Your task to perform on an android device: Open Reddit.com Image 0: 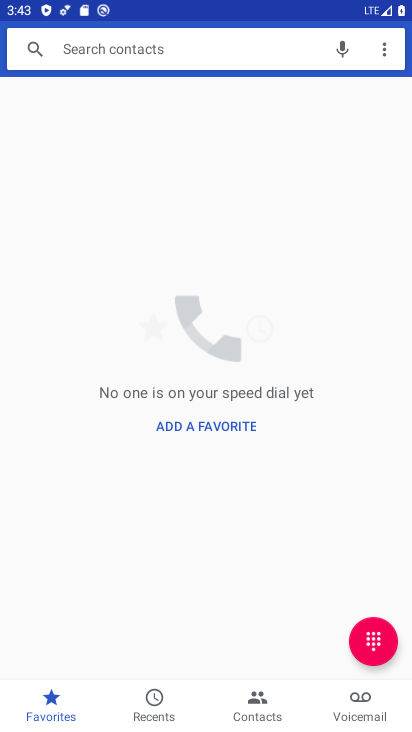
Step 0: press back button
Your task to perform on an android device: Open Reddit.com Image 1: 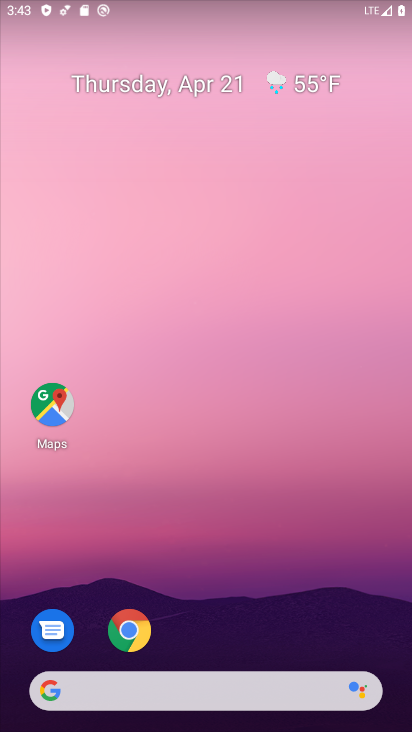
Step 1: click (137, 641)
Your task to perform on an android device: Open Reddit.com Image 2: 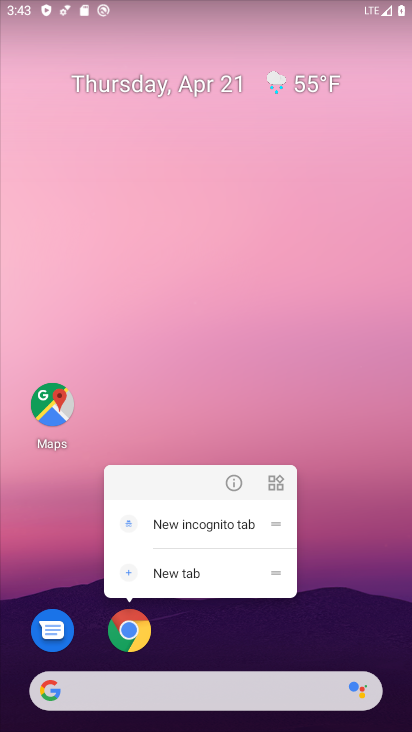
Step 2: click (128, 635)
Your task to perform on an android device: Open Reddit.com Image 3: 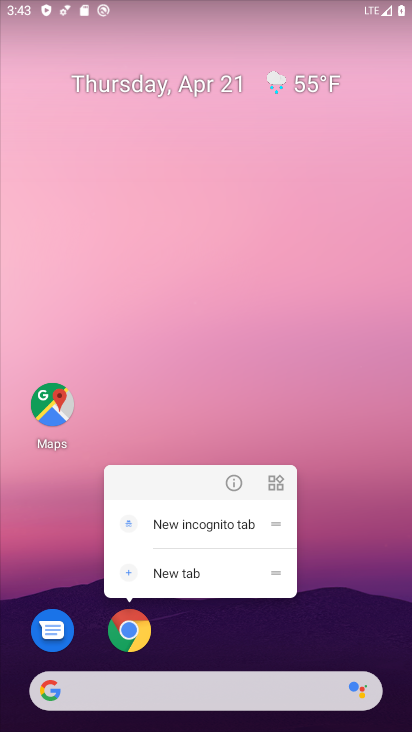
Step 3: click (128, 634)
Your task to perform on an android device: Open Reddit.com Image 4: 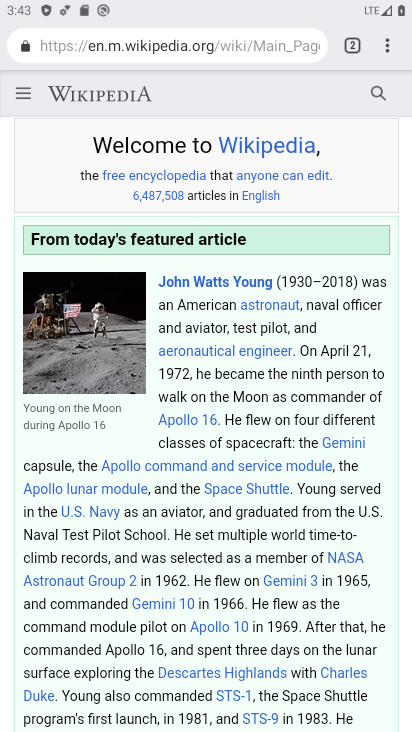
Step 4: click (360, 49)
Your task to perform on an android device: Open Reddit.com Image 5: 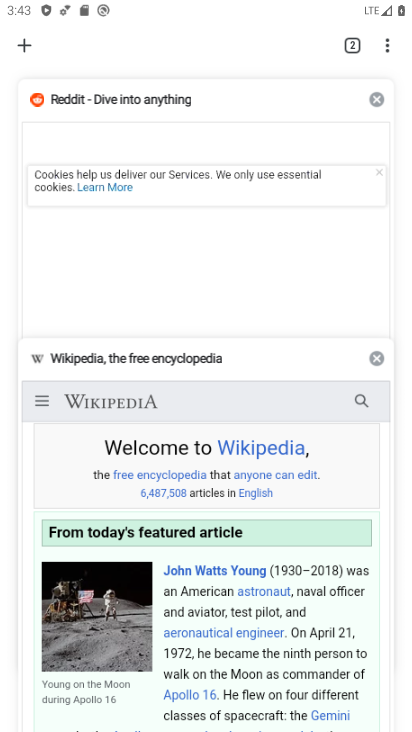
Step 5: click (87, 94)
Your task to perform on an android device: Open Reddit.com Image 6: 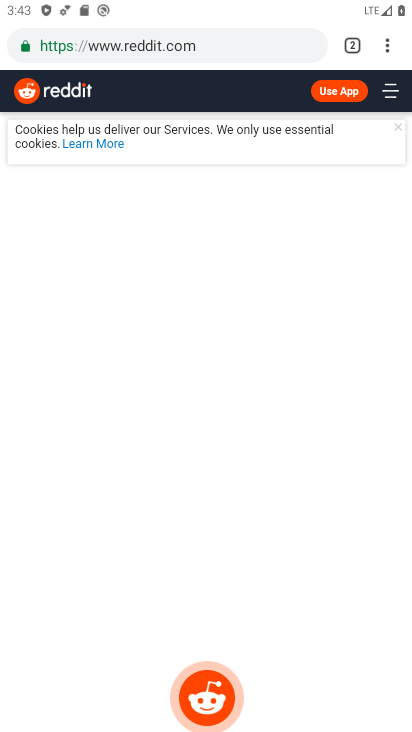
Step 6: task complete